Your task to perform on an android device: turn pop-ups off in chrome Image 0: 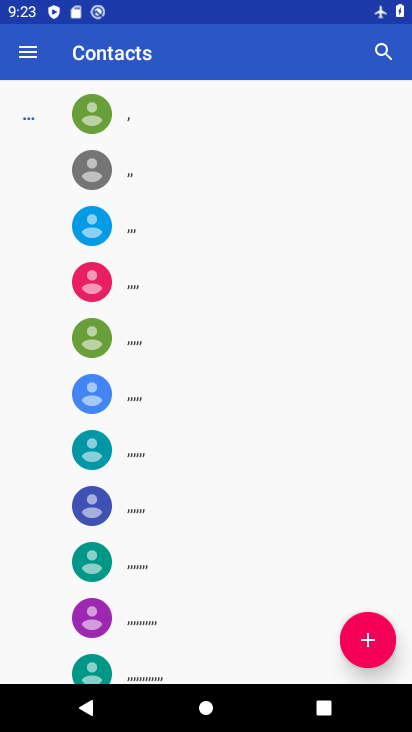
Step 0: press home button
Your task to perform on an android device: turn pop-ups off in chrome Image 1: 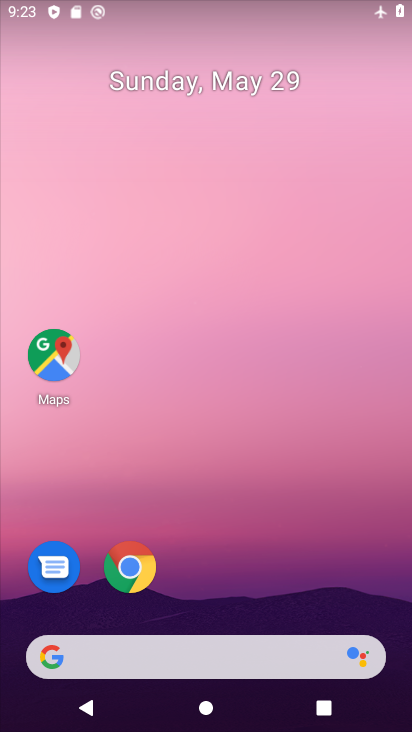
Step 1: click (132, 568)
Your task to perform on an android device: turn pop-ups off in chrome Image 2: 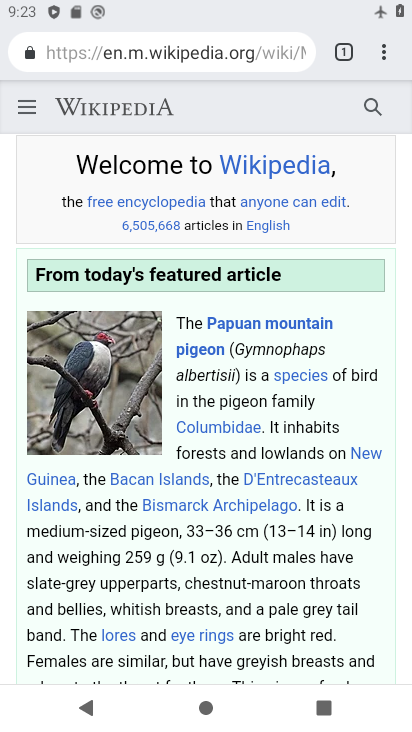
Step 2: click (383, 59)
Your task to perform on an android device: turn pop-ups off in chrome Image 3: 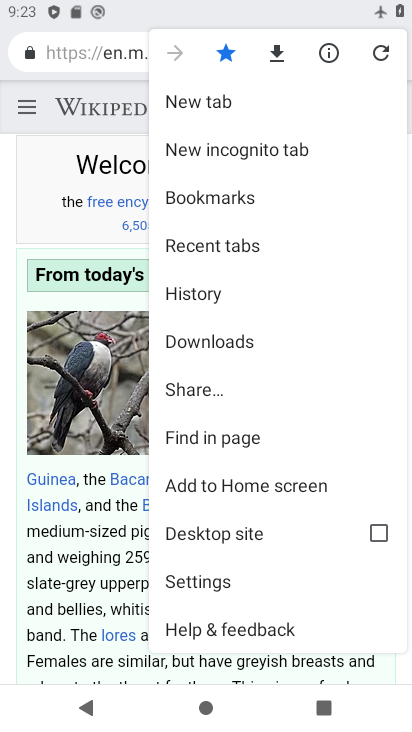
Step 3: click (202, 580)
Your task to perform on an android device: turn pop-ups off in chrome Image 4: 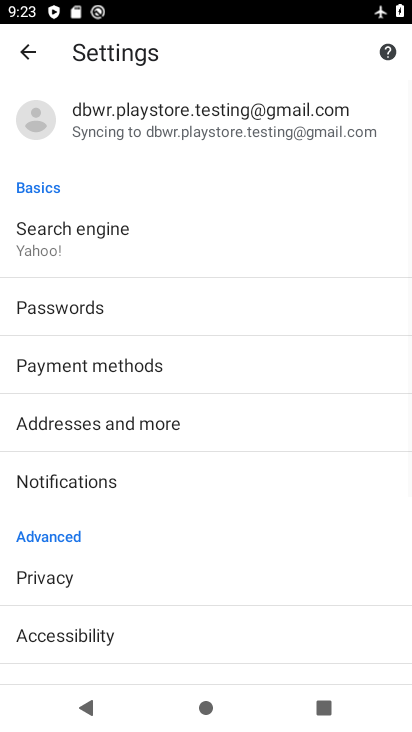
Step 4: drag from (183, 607) to (217, 189)
Your task to perform on an android device: turn pop-ups off in chrome Image 5: 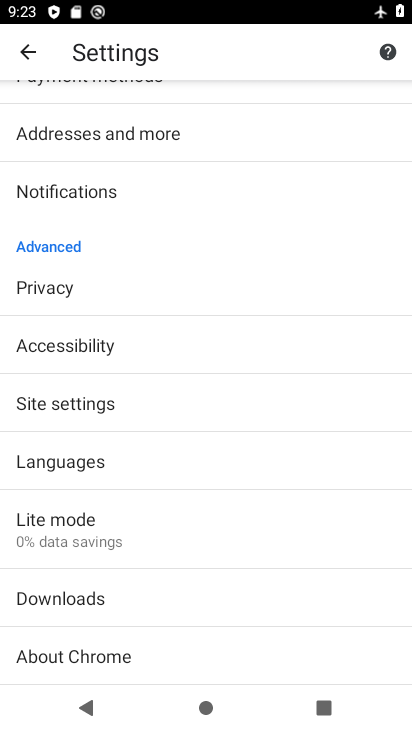
Step 5: click (68, 401)
Your task to perform on an android device: turn pop-ups off in chrome Image 6: 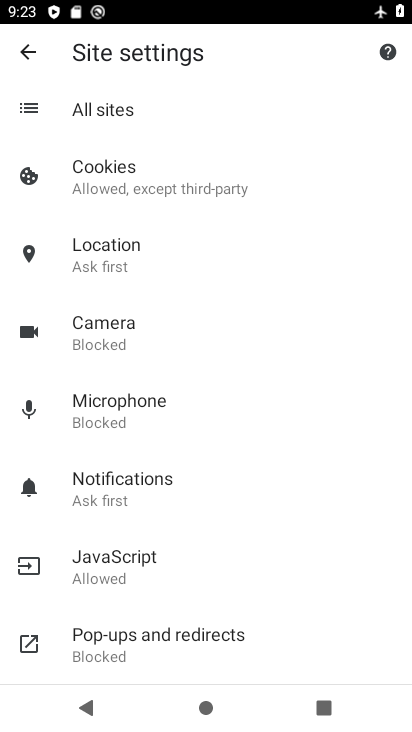
Step 6: click (123, 646)
Your task to perform on an android device: turn pop-ups off in chrome Image 7: 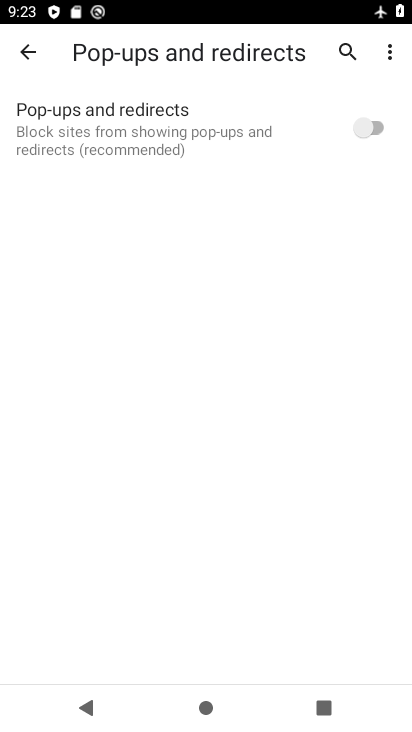
Step 7: task complete